Your task to perform on an android device: change notification settings in the gmail app Image 0: 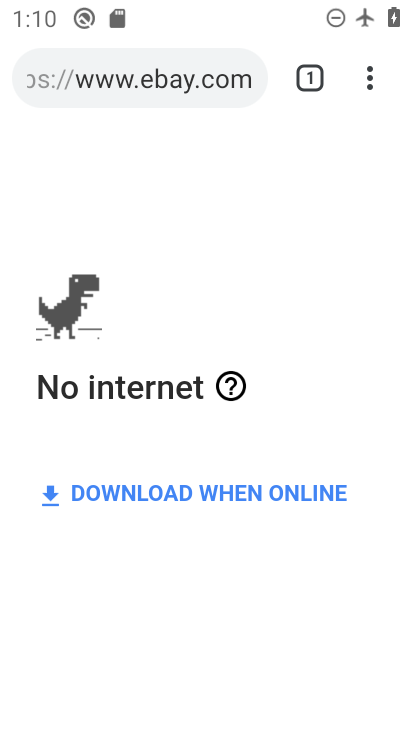
Step 0: press home button
Your task to perform on an android device: change notification settings in the gmail app Image 1: 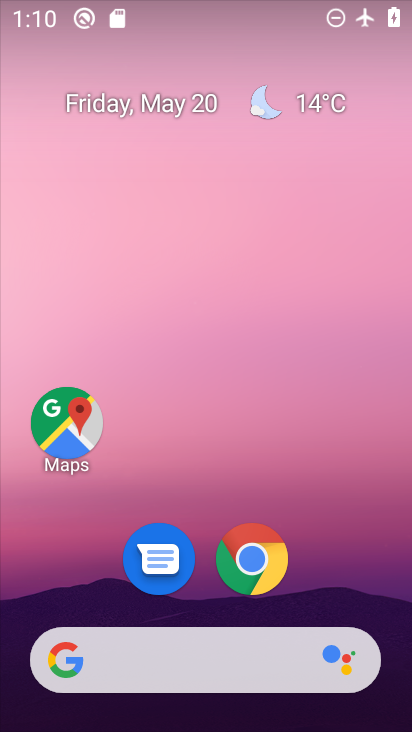
Step 1: drag from (373, 515) to (354, 41)
Your task to perform on an android device: change notification settings in the gmail app Image 2: 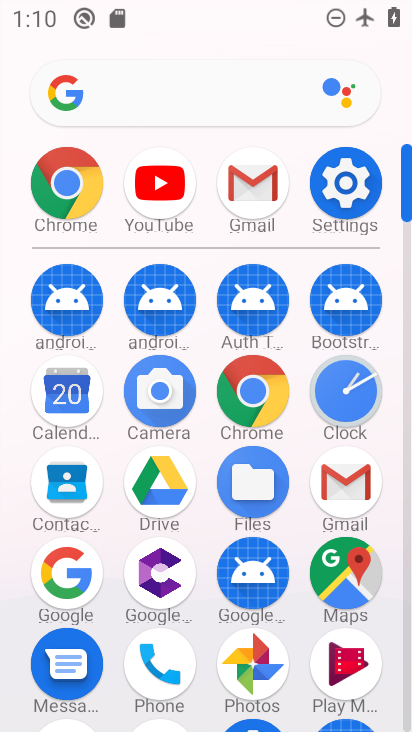
Step 2: click (351, 217)
Your task to perform on an android device: change notification settings in the gmail app Image 3: 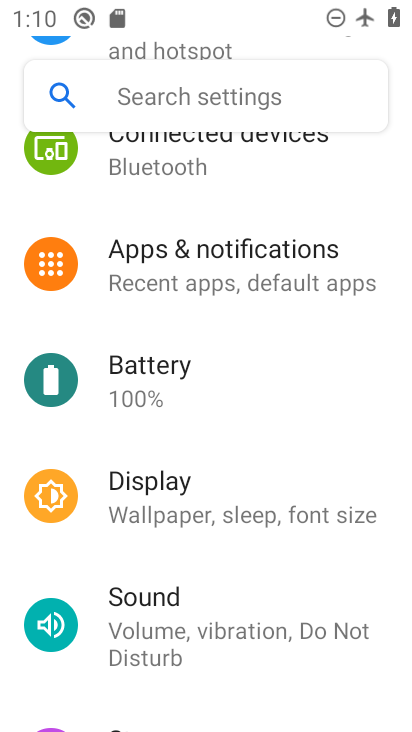
Step 3: drag from (148, 241) to (152, 537)
Your task to perform on an android device: change notification settings in the gmail app Image 4: 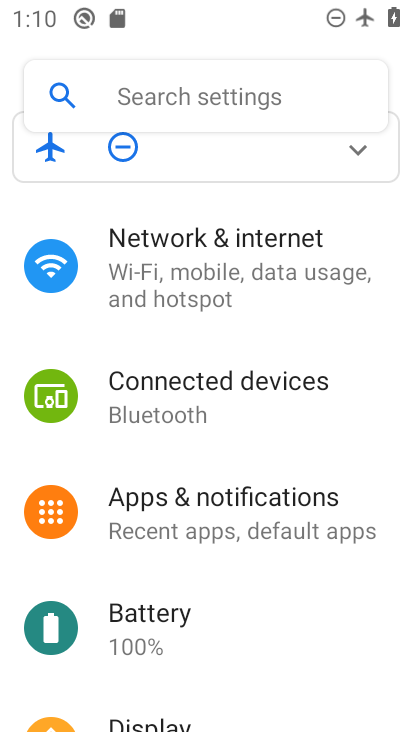
Step 4: click (170, 249)
Your task to perform on an android device: change notification settings in the gmail app Image 5: 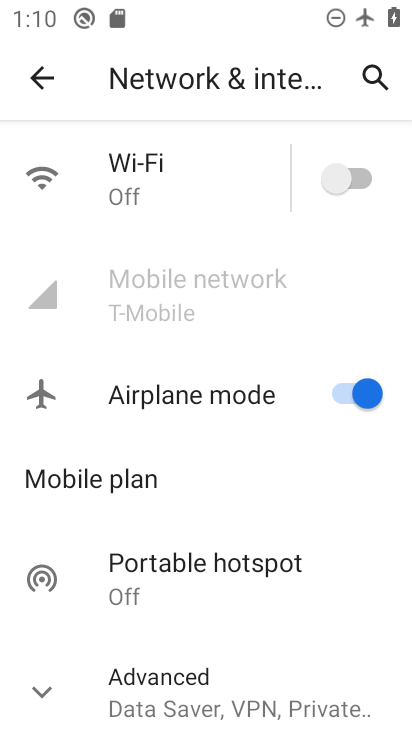
Step 5: click (349, 375)
Your task to perform on an android device: change notification settings in the gmail app Image 6: 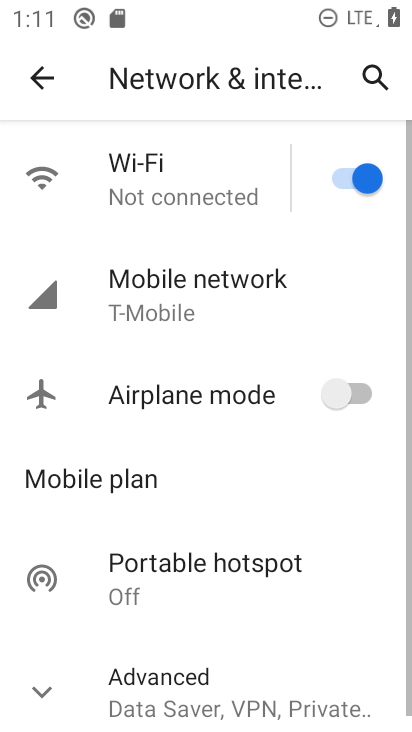
Step 6: click (34, 74)
Your task to perform on an android device: change notification settings in the gmail app Image 7: 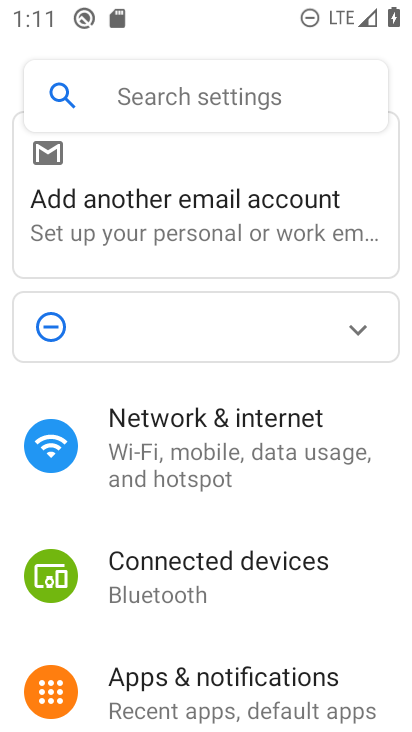
Step 7: click (167, 323)
Your task to perform on an android device: change notification settings in the gmail app Image 8: 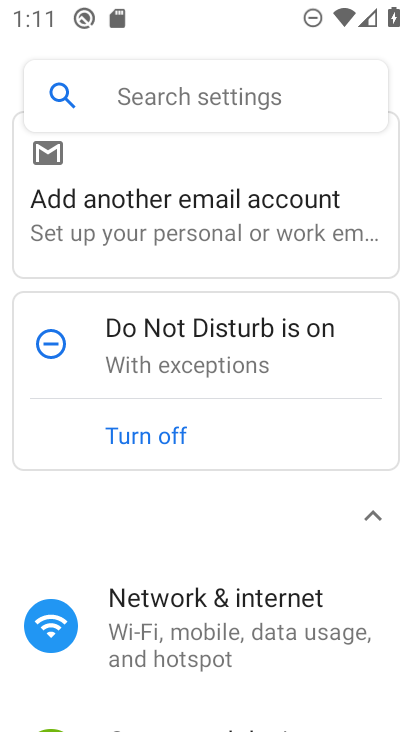
Step 8: click (223, 443)
Your task to perform on an android device: change notification settings in the gmail app Image 9: 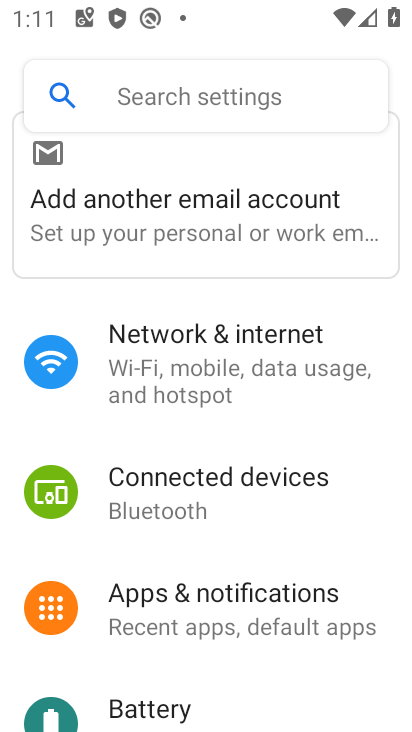
Step 9: press home button
Your task to perform on an android device: change notification settings in the gmail app Image 10: 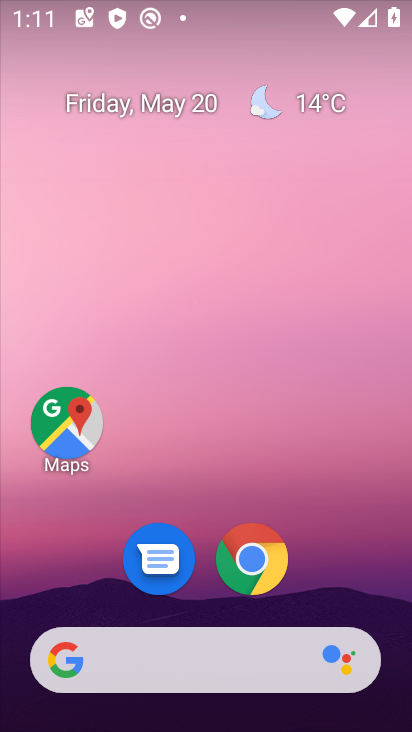
Step 10: drag from (359, 571) to (340, 224)
Your task to perform on an android device: change notification settings in the gmail app Image 11: 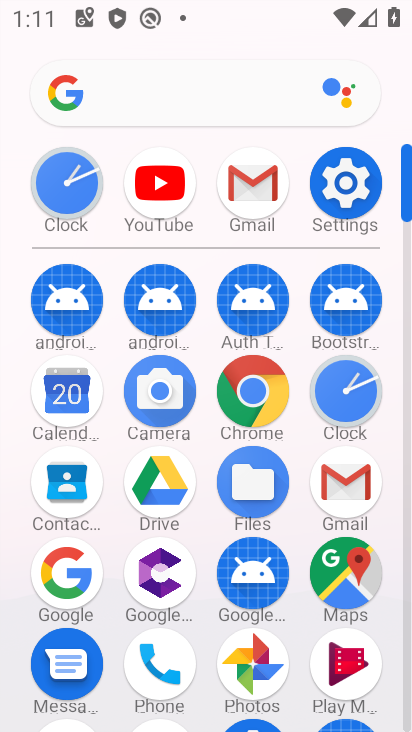
Step 11: click (257, 193)
Your task to perform on an android device: change notification settings in the gmail app Image 12: 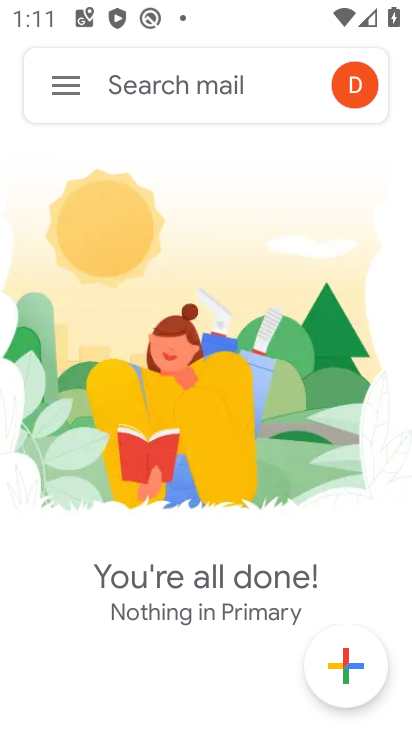
Step 12: click (73, 94)
Your task to perform on an android device: change notification settings in the gmail app Image 13: 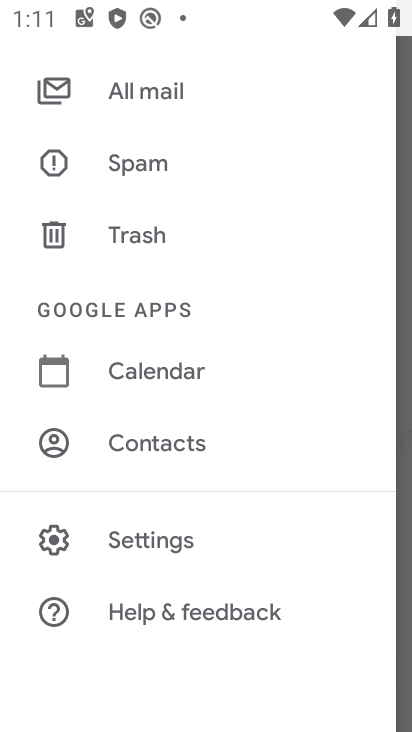
Step 13: click (140, 567)
Your task to perform on an android device: change notification settings in the gmail app Image 14: 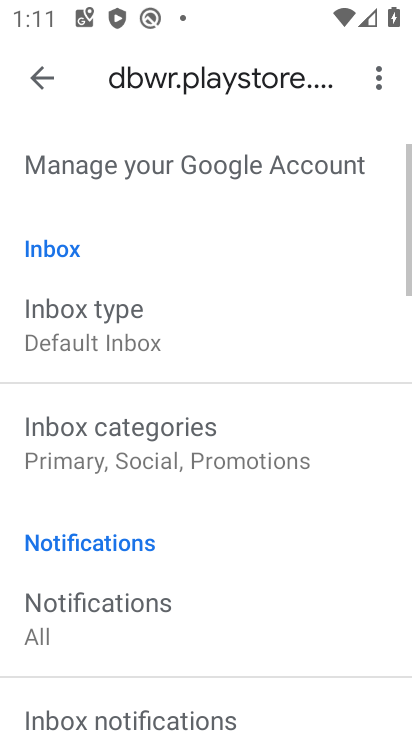
Step 14: drag from (140, 567) to (157, 214)
Your task to perform on an android device: change notification settings in the gmail app Image 15: 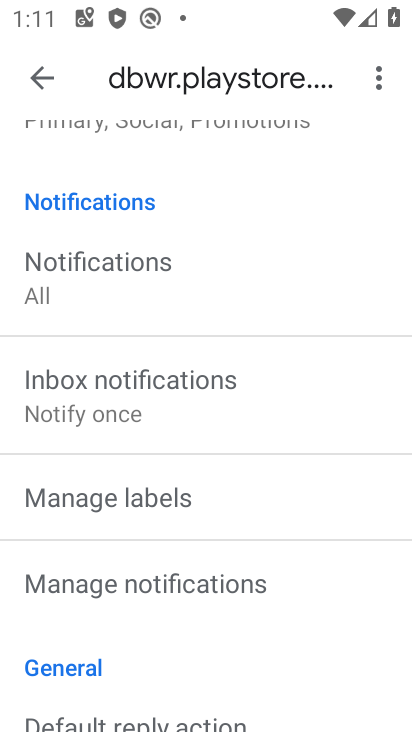
Step 15: click (172, 269)
Your task to perform on an android device: change notification settings in the gmail app Image 16: 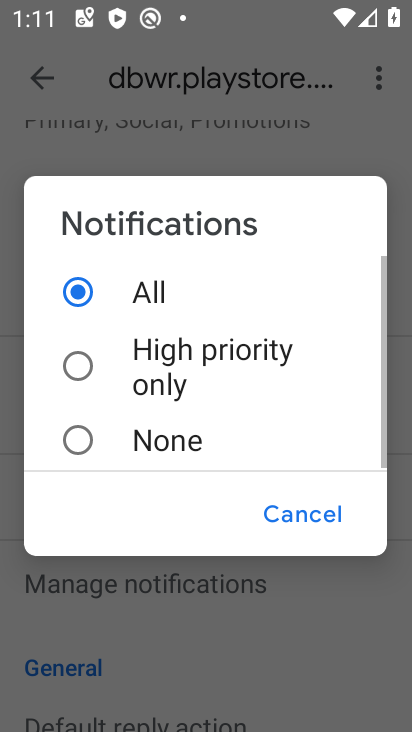
Step 16: click (134, 453)
Your task to perform on an android device: change notification settings in the gmail app Image 17: 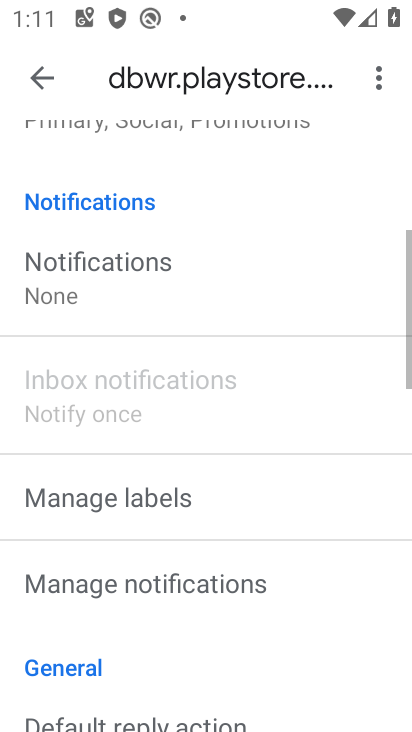
Step 17: task complete